Your task to perform on an android device: empty trash in google photos Image 0: 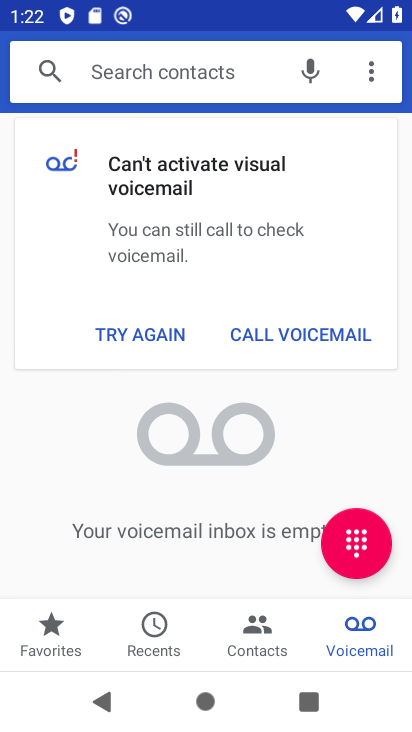
Step 0: press home button
Your task to perform on an android device: empty trash in google photos Image 1: 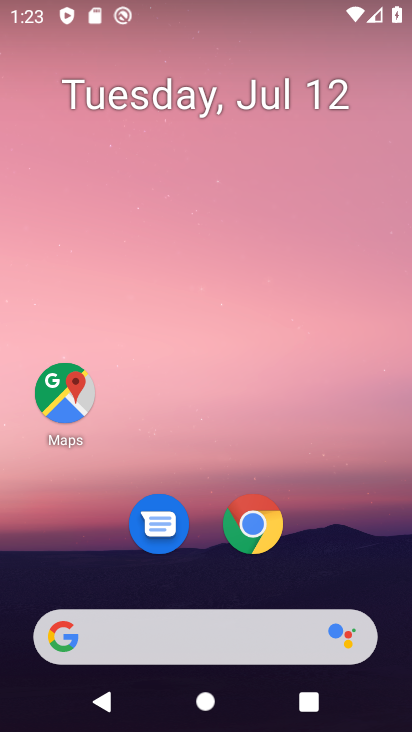
Step 1: drag from (333, 534) to (252, 1)
Your task to perform on an android device: empty trash in google photos Image 2: 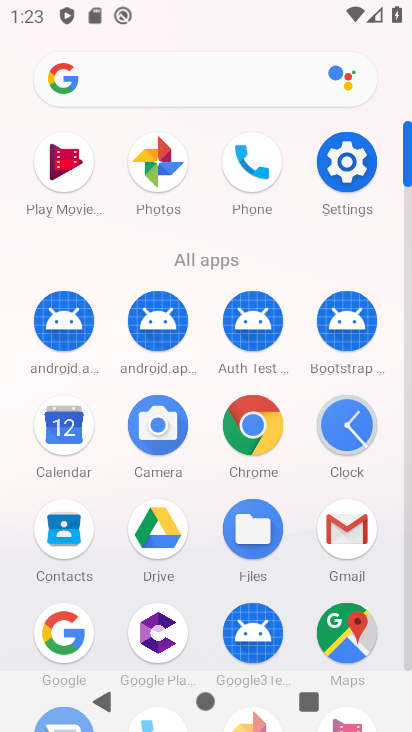
Step 2: click (169, 160)
Your task to perform on an android device: empty trash in google photos Image 3: 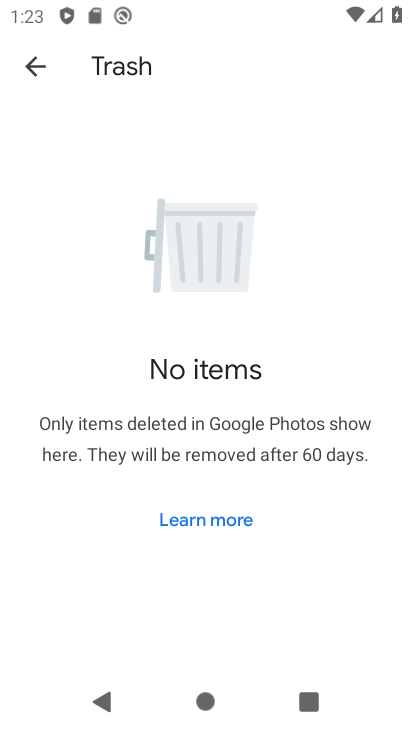
Step 3: task complete